Your task to perform on an android device: snooze an email in the gmail app Image 0: 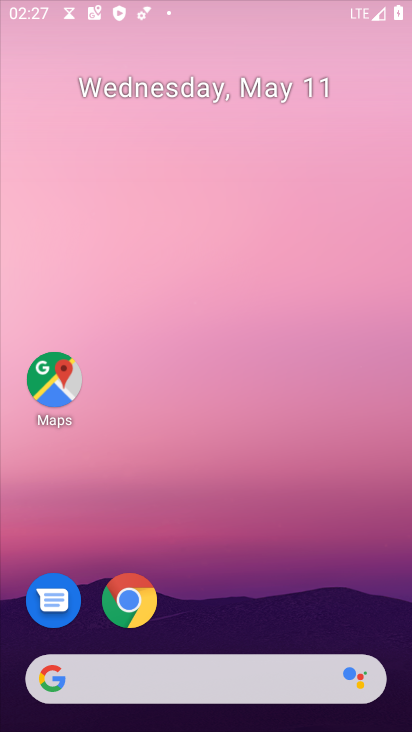
Step 0: drag from (236, 582) to (295, 159)
Your task to perform on an android device: snooze an email in the gmail app Image 1: 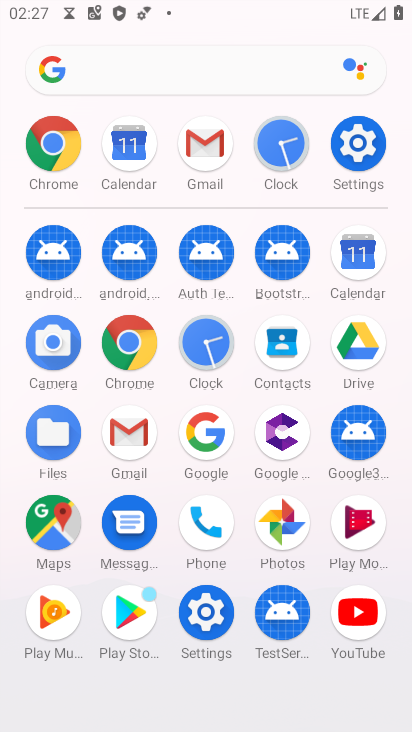
Step 1: click (199, 153)
Your task to perform on an android device: snooze an email in the gmail app Image 2: 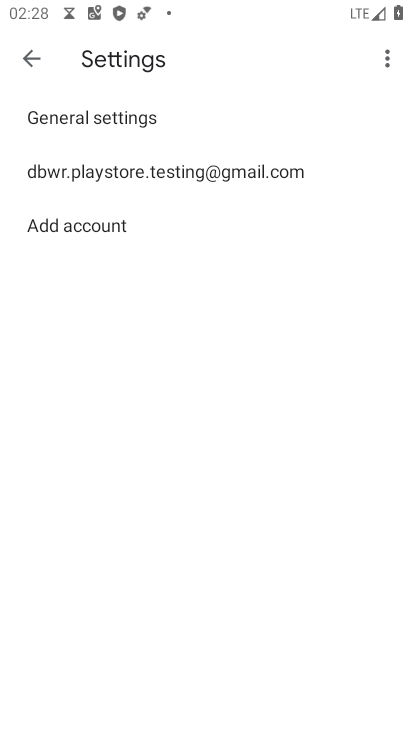
Step 2: click (28, 57)
Your task to perform on an android device: snooze an email in the gmail app Image 3: 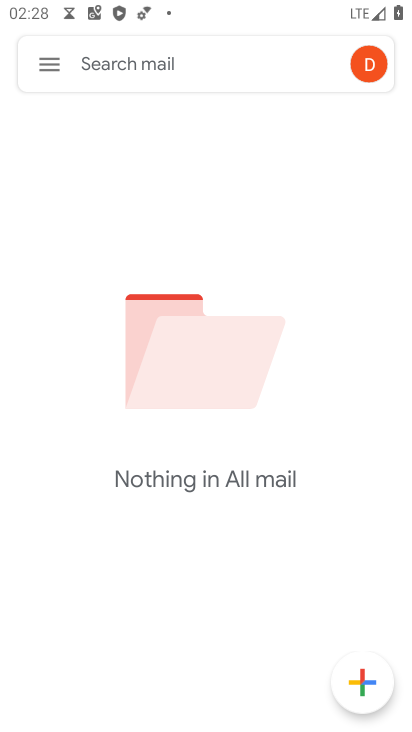
Step 3: click (48, 67)
Your task to perform on an android device: snooze an email in the gmail app Image 4: 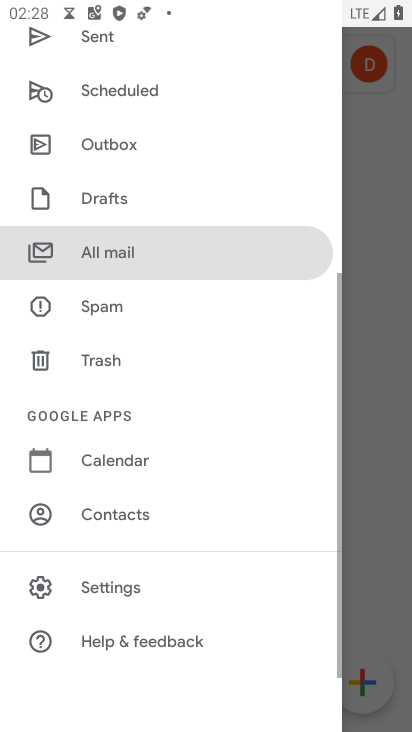
Step 4: drag from (126, 109) to (133, 447)
Your task to perform on an android device: snooze an email in the gmail app Image 5: 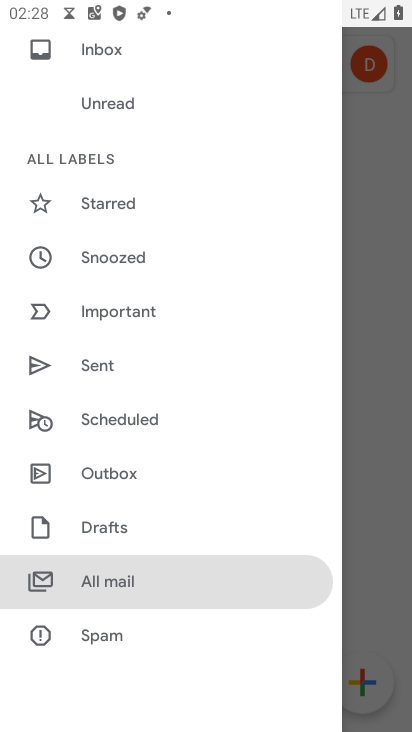
Step 5: click (104, 255)
Your task to perform on an android device: snooze an email in the gmail app Image 6: 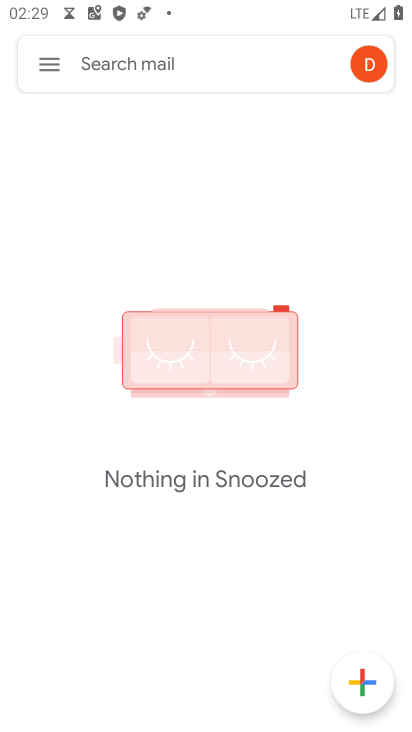
Step 6: task complete